Your task to perform on an android device: Open calendar and show me the second week of next month Image 0: 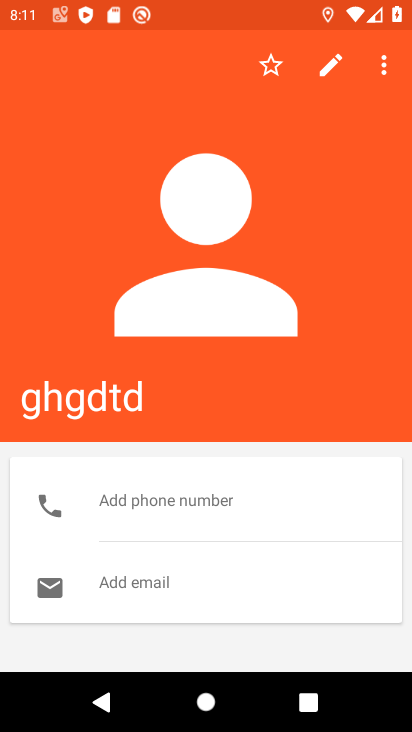
Step 0: press home button
Your task to perform on an android device: Open calendar and show me the second week of next month Image 1: 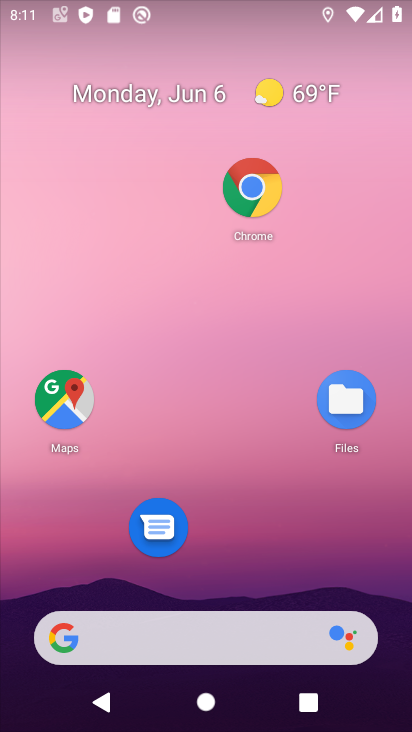
Step 1: drag from (229, 562) to (279, 140)
Your task to perform on an android device: Open calendar and show me the second week of next month Image 2: 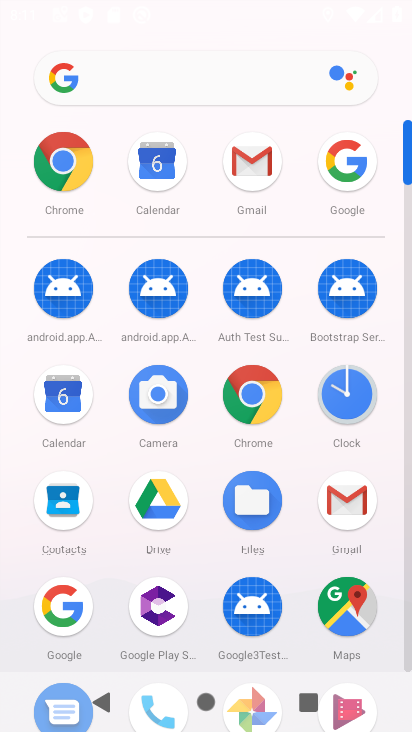
Step 2: click (74, 400)
Your task to perform on an android device: Open calendar and show me the second week of next month Image 3: 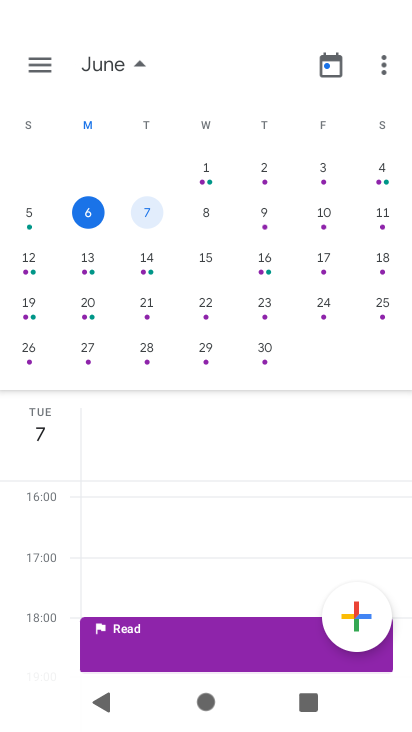
Step 3: drag from (375, 376) to (61, 377)
Your task to perform on an android device: Open calendar and show me the second week of next month Image 4: 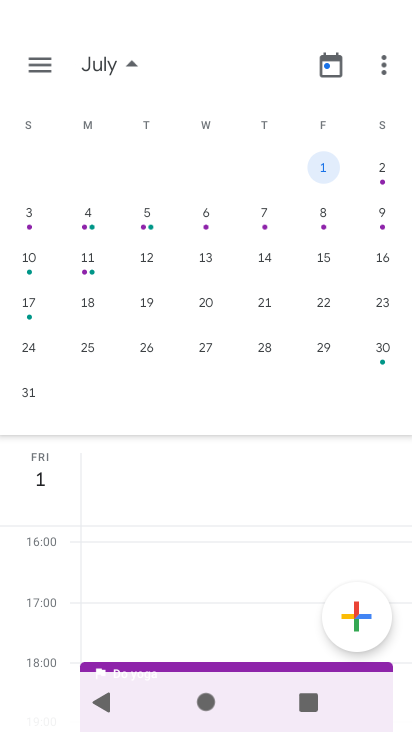
Step 4: click (89, 253)
Your task to perform on an android device: Open calendar and show me the second week of next month Image 5: 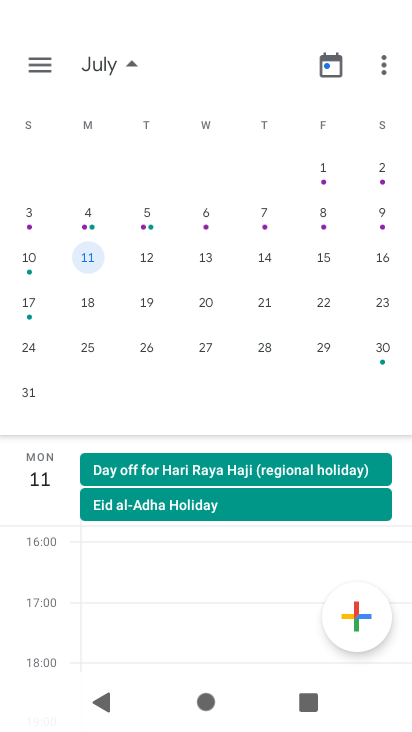
Step 5: task complete